Your task to perform on an android device: open app "McDonald's" (install if not already installed) Image 0: 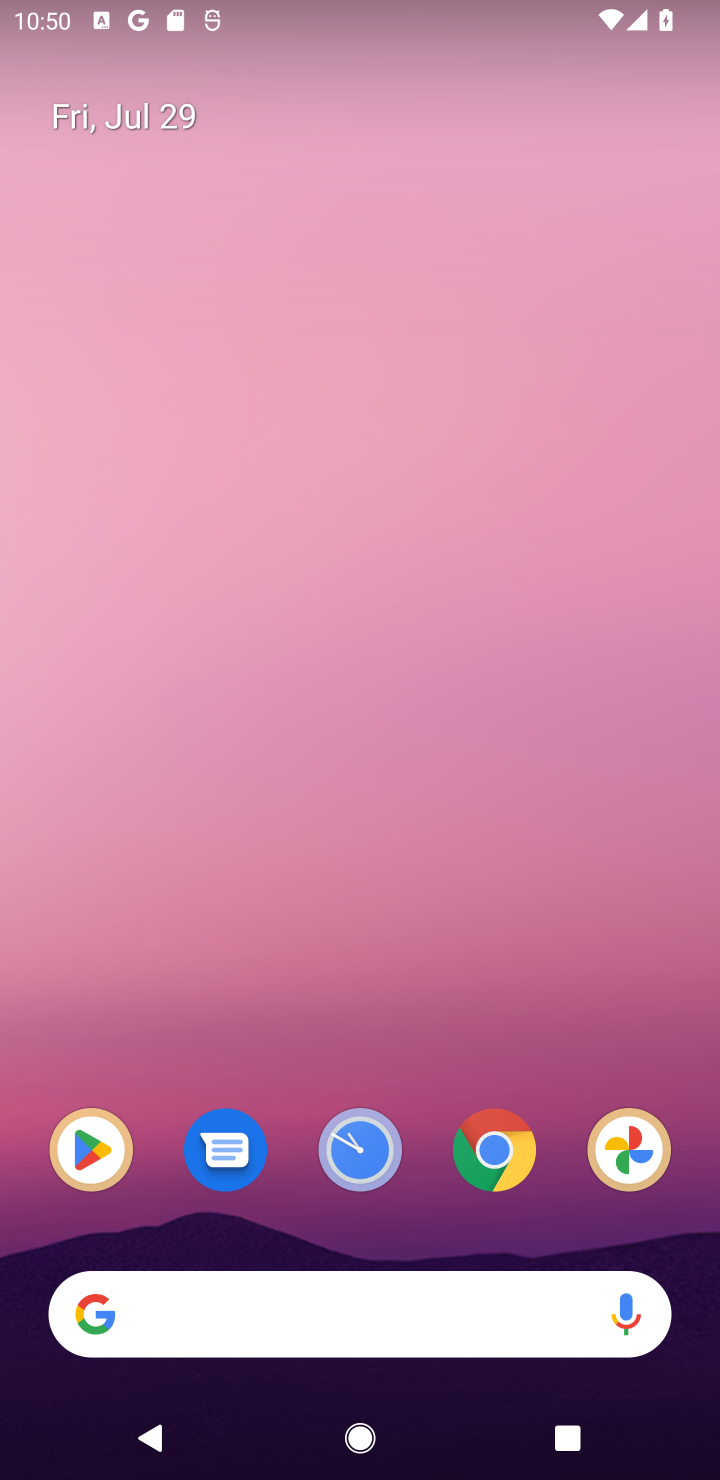
Step 0: click (60, 1143)
Your task to perform on an android device: open app "McDonald's" (install if not already installed) Image 1: 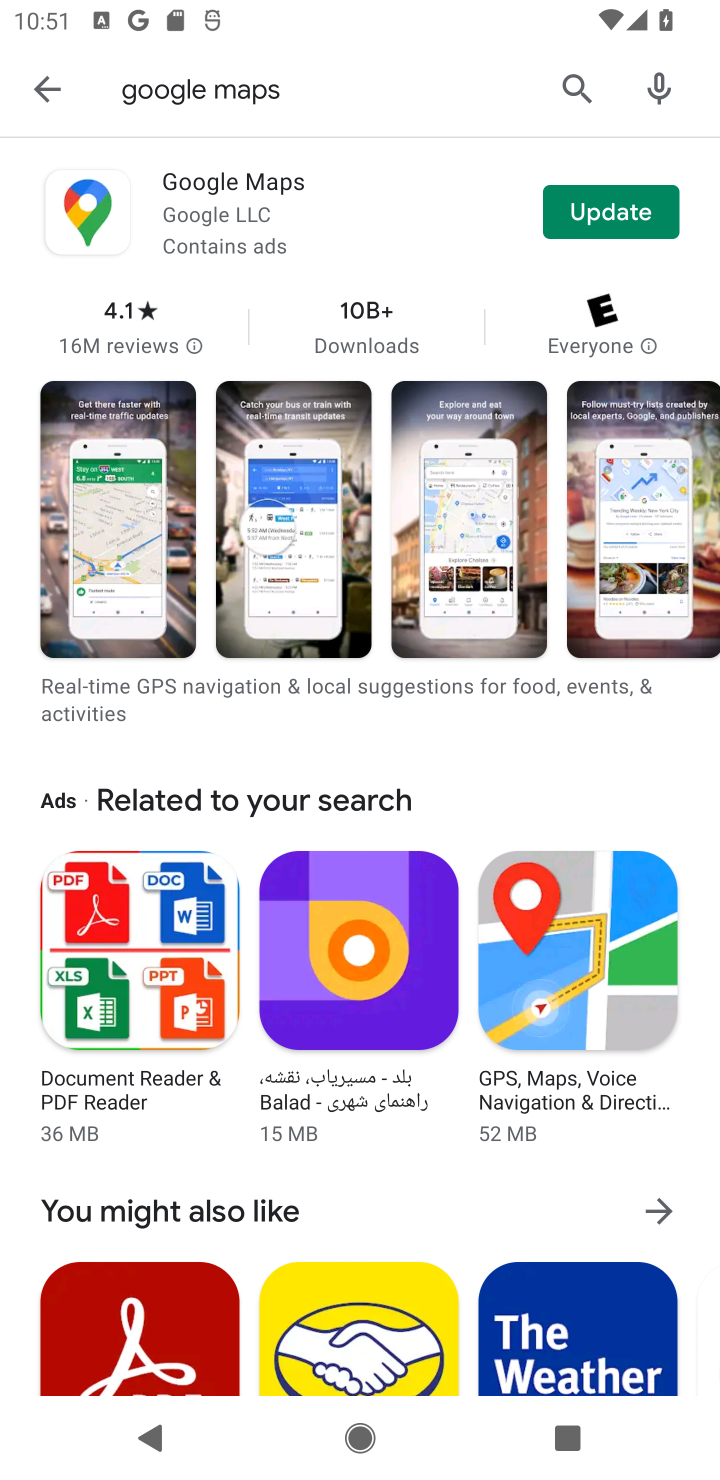
Step 1: click (575, 94)
Your task to perform on an android device: open app "McDonald's" (install if not already installed) Image 2: 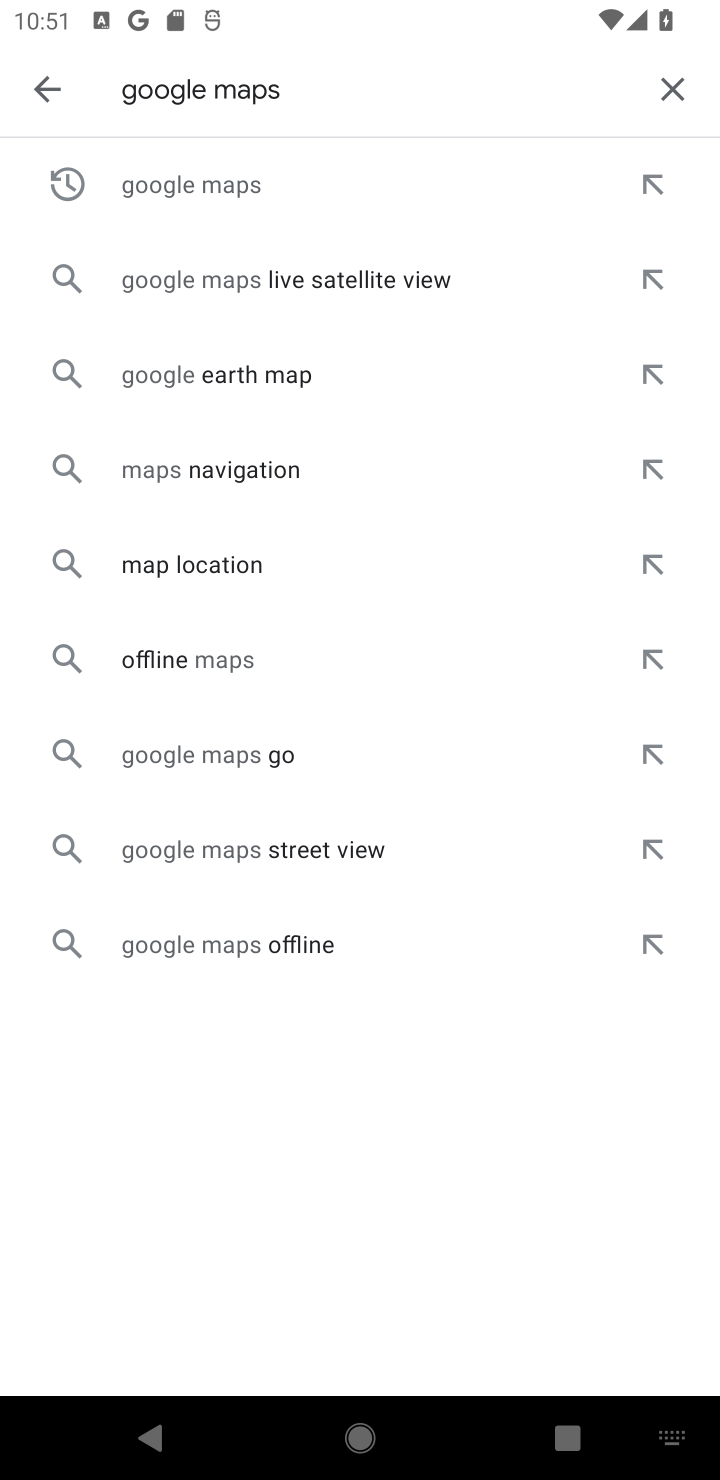
Step 2: click (685, 75)
Your task to perform on an android device: open app "McDonald's" (install if not already installed) Image 3: 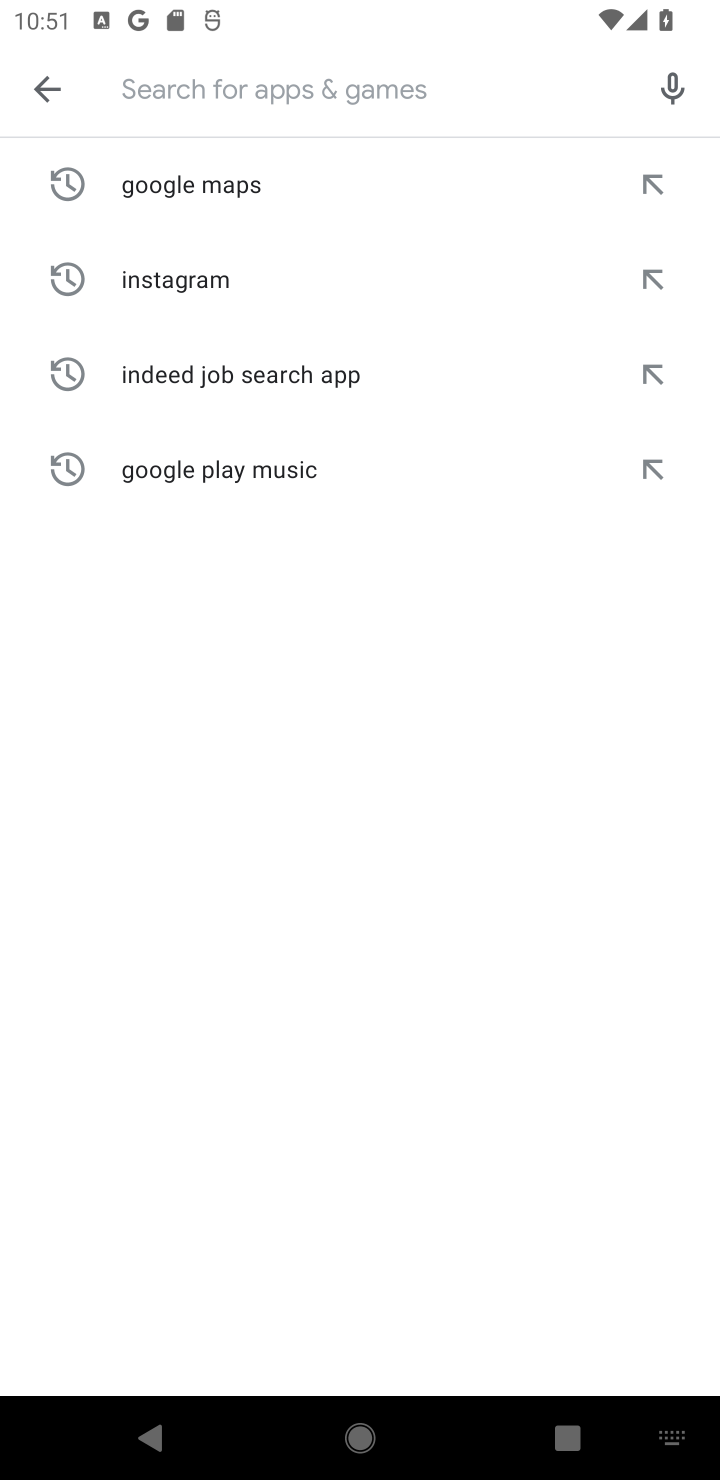
Step 3: click (299, 74)
Your task to perform on an android device: open app "McDonald's" (install if not already installed) Image 4: 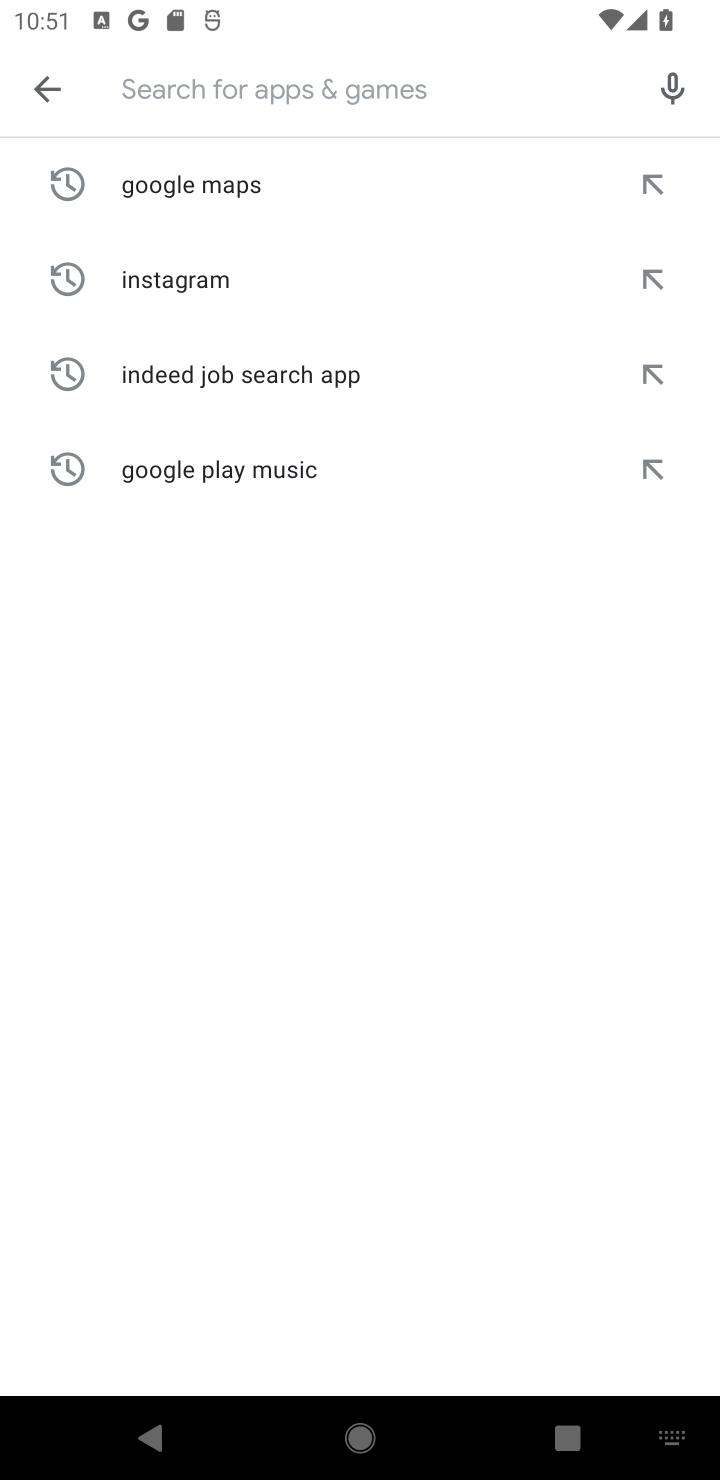
Step 4: type "mcdonalds"
Your task to perform on an android device: open app "McDonald's" (install if not already installed) Image 5: 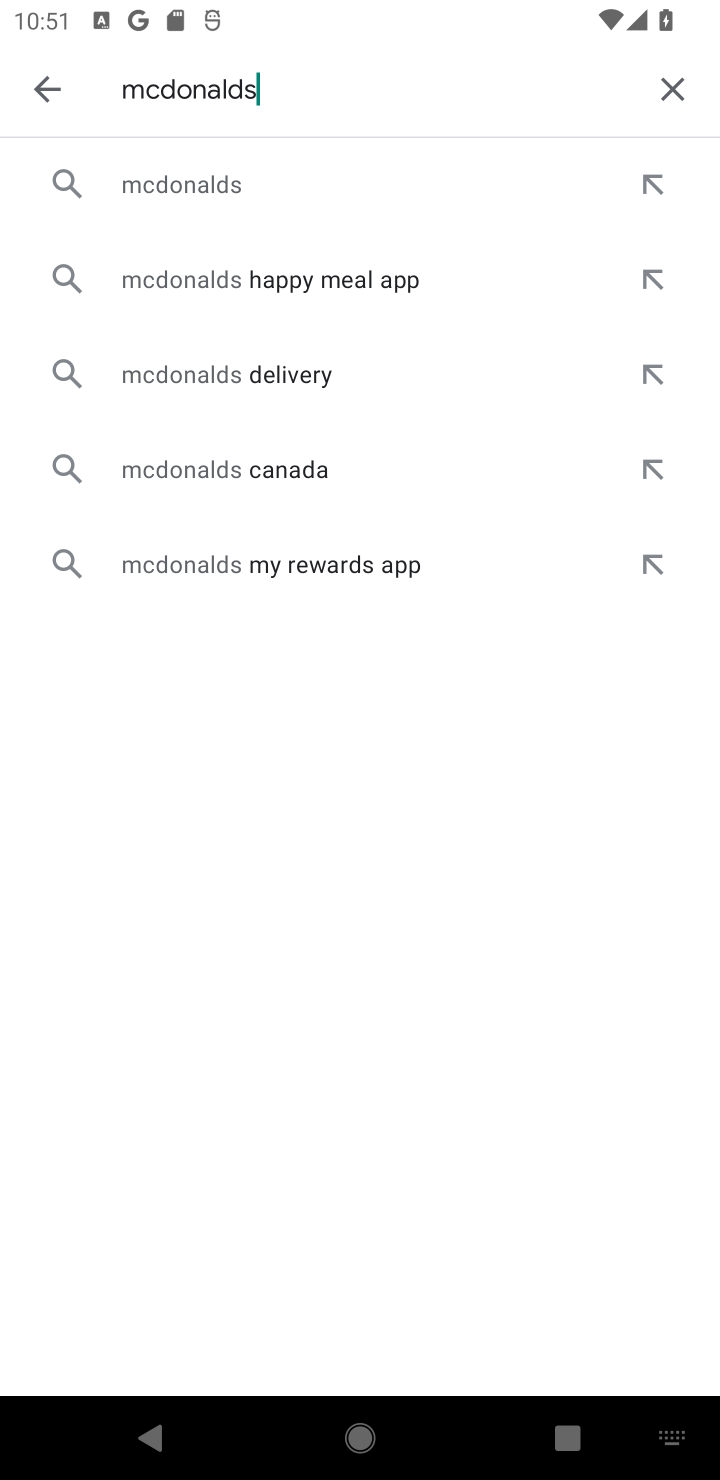
Step 5: click (145, 202)
Your task to perform on an android device: open app "McDonald's" (install if not already installed) Image 6: 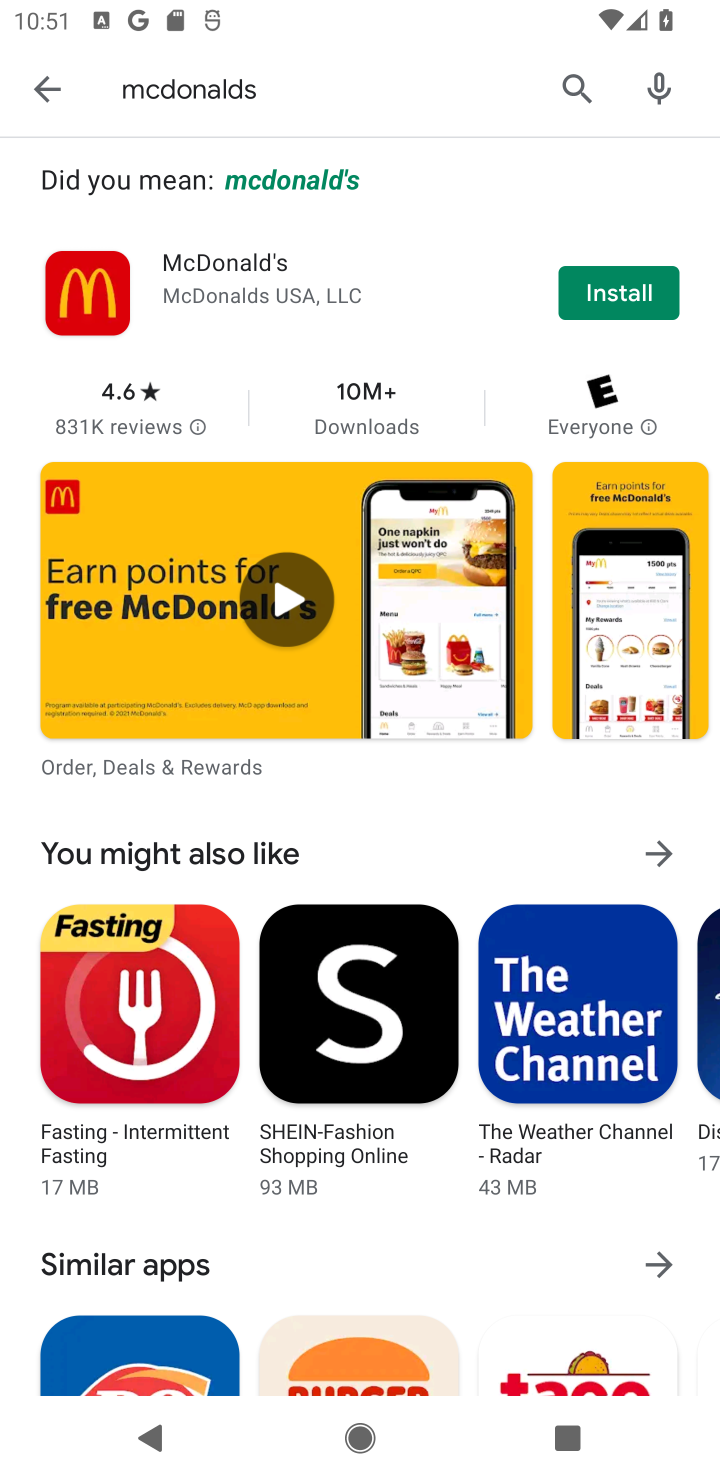
Step 6: click (619, 273)
Your task to perform on an android device: open app "McDonald's" (install if not already installed) Image 7: 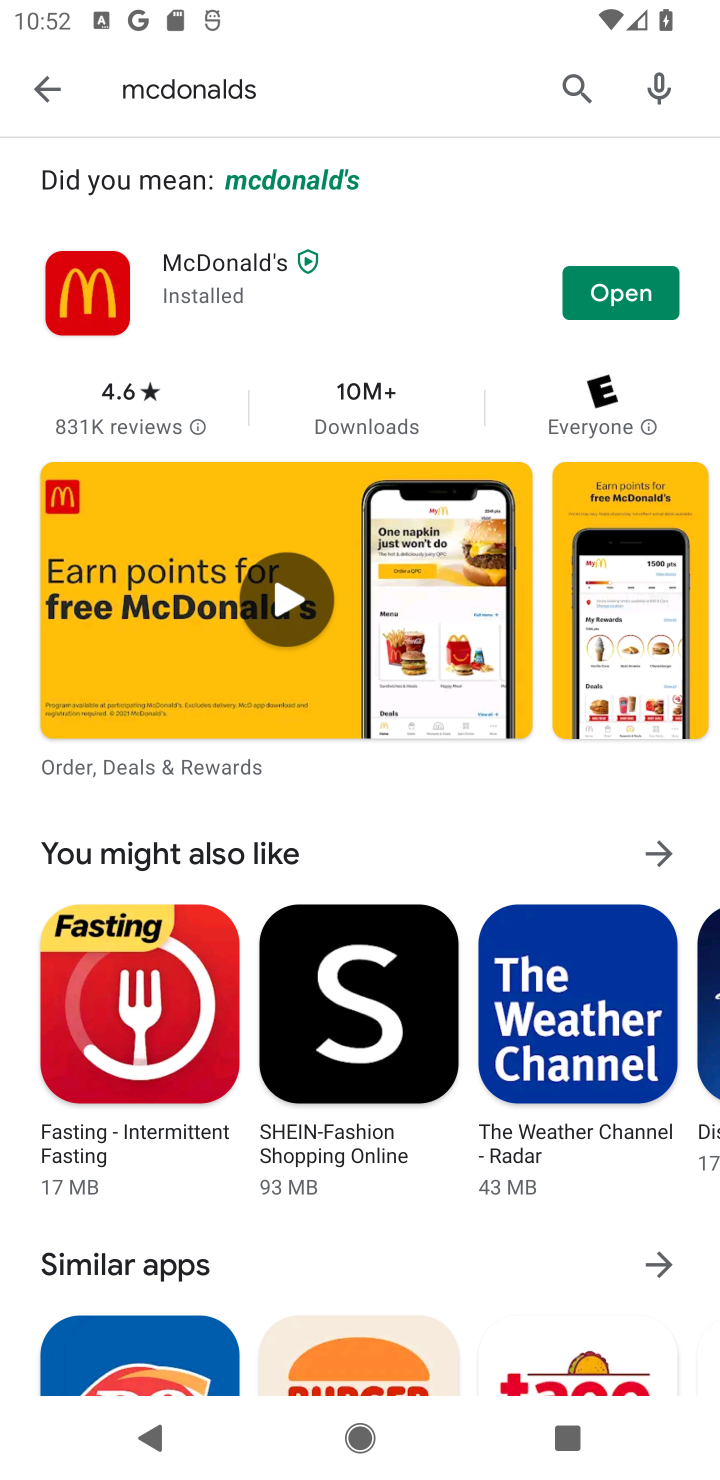
Step 7: click (609, 305)
Your task to perform on an android device: open app "McDonald's" (install if not already installed) Image 8: 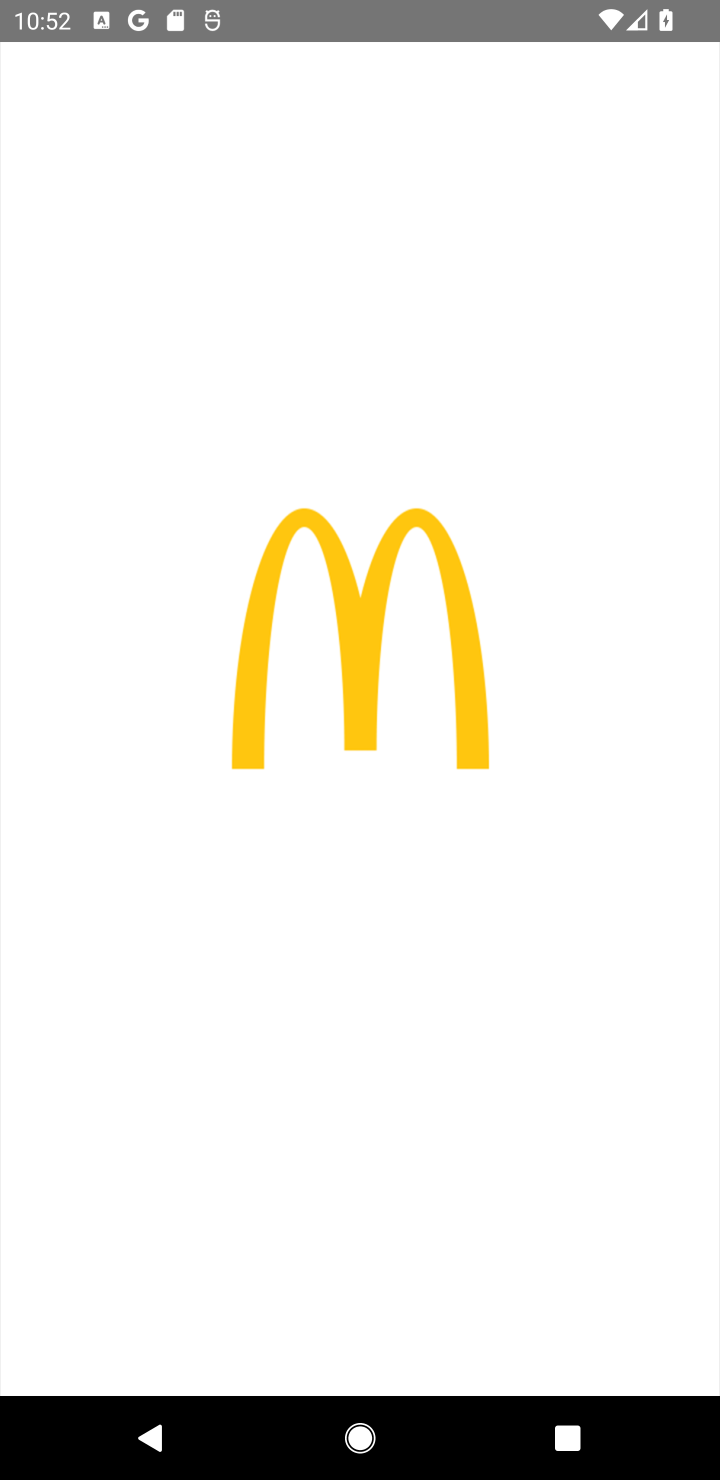
Step 8: task complete